Your task to perform on an android device: What's the weather going to be tomorrow? Image 0: 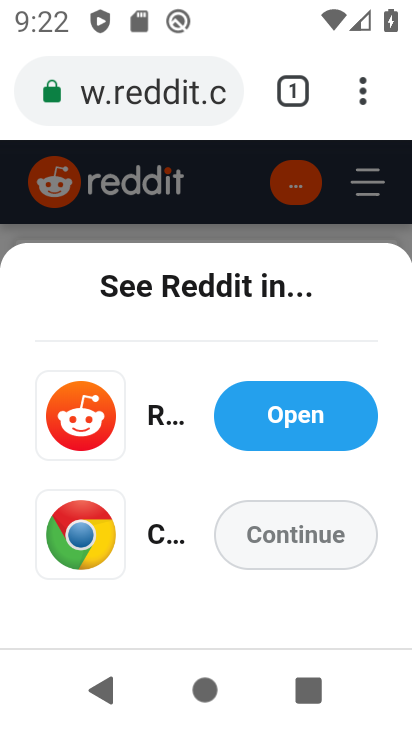
Step 0: press back button
Your task to perform on an android device: What's the weather going to be tomorrow? Image 1: 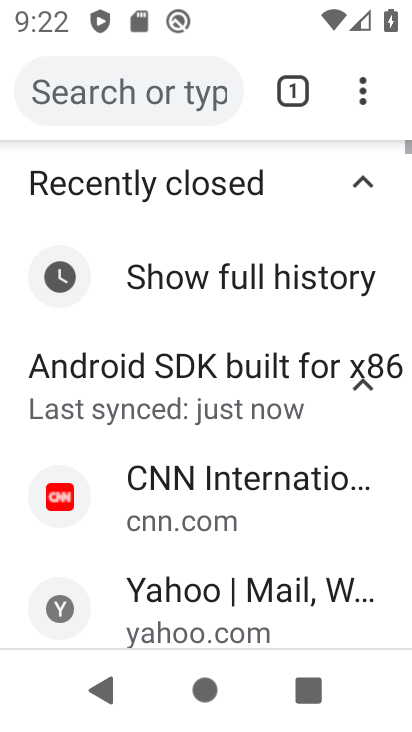
Step 1: press back button
Your task to perform on an android device: What's the weather going to be tomorrow? Image 2: 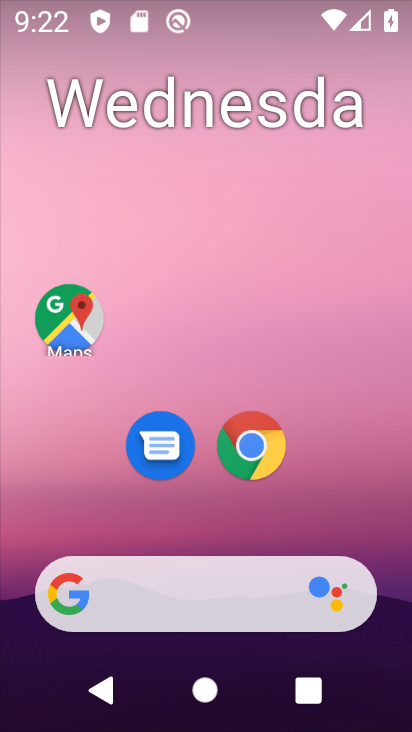
Step 2: click (175, 589)
Your task to perform on an android device: What's the weather going to be tomorrow? Image 3: 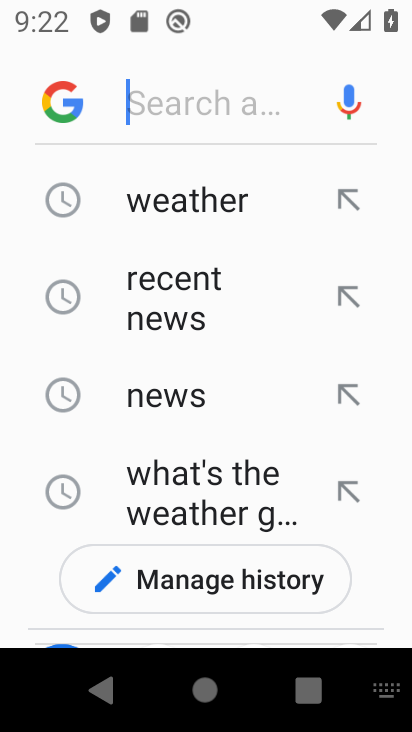
Step 3: click (174, 189)
Your task to perform on an android device: What's the weather going to be tomorrow? Image 4: 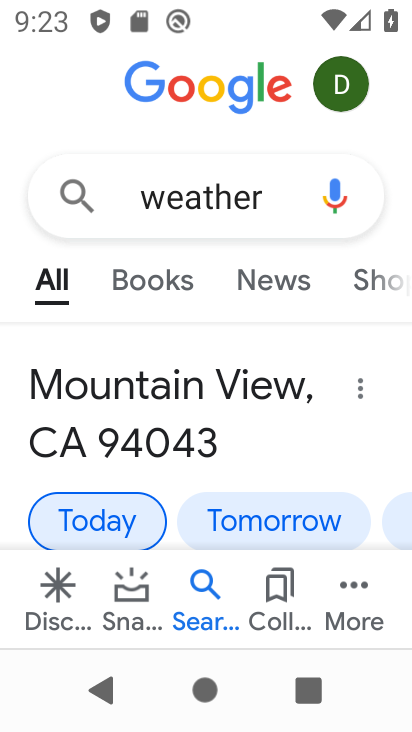
Step 4: click (271, 529)
Your task to perform on an android device: What's the weather going to be tomorrow? Image 5: 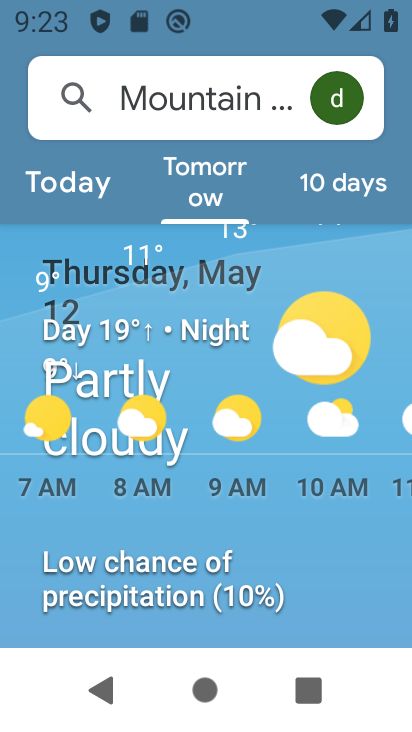
Step 5: task complete